Your task to perform on an android device: turn off wifi Image 0: 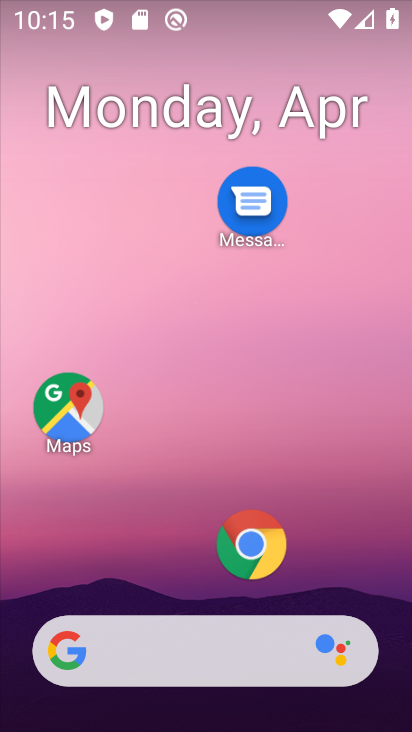
Step 0: drag from (220, 15) to (215, 649)
Your task to perform on an android device: turn off wifi Image 1: 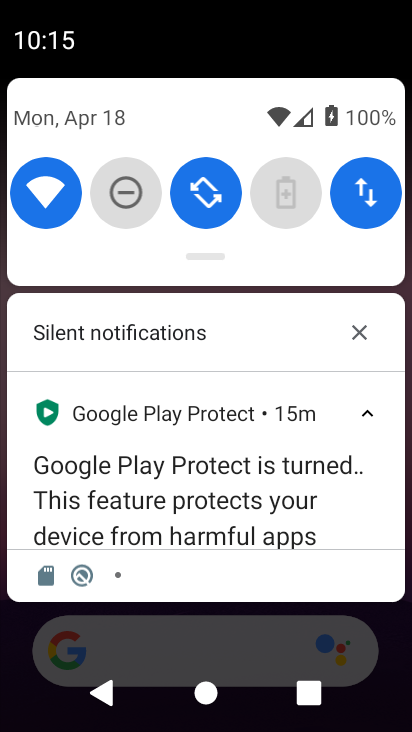
Step 1: click (44, 189)
Your task to perform on an android device: turn off wifi Image 2: 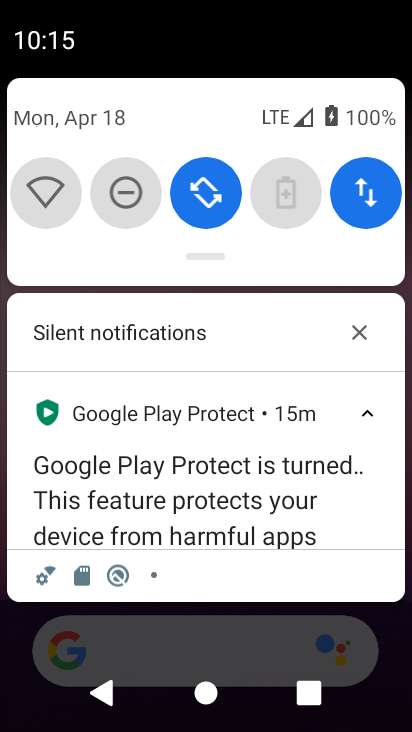
Step 2: task complete